Your task to perform on an android device: open a bookmark in the chrome app Image 0: 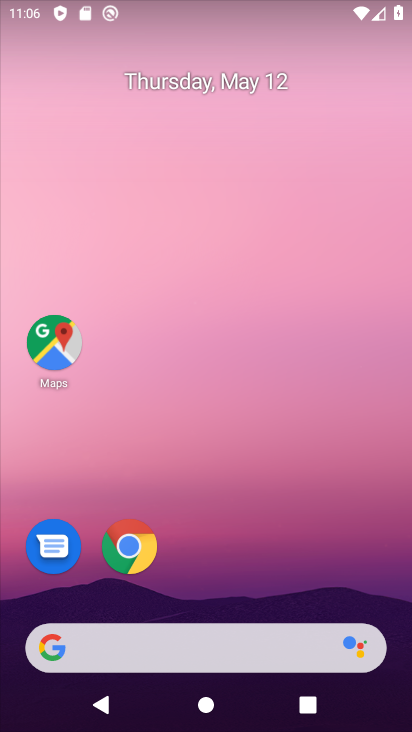
Step 0: click (136, 552)
Your task to perform on an android device: open a bookmark in the chrome app Image 1: 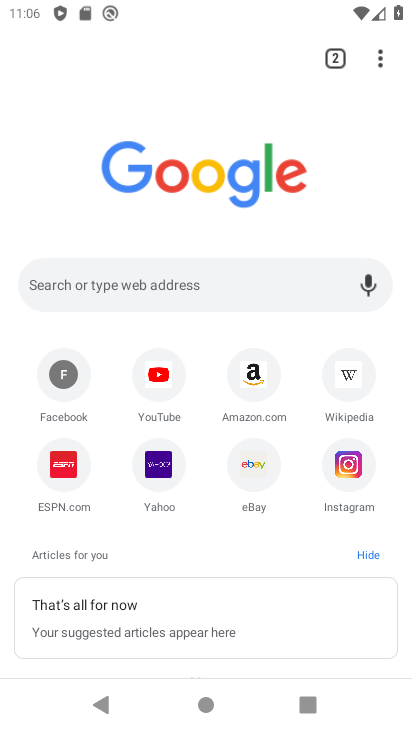
Step 1: click (381, 64)
Your task to perform on an android device: open a bookmark in the chrome app Image 2: 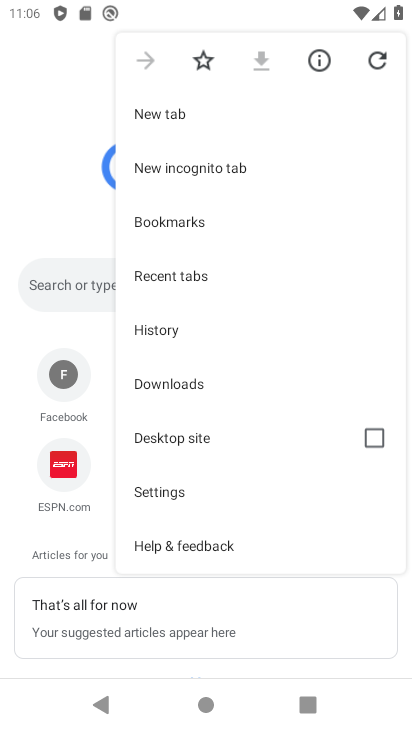
Step 2: click (182, 221)
Your task to perform on an android device: open a bookmark in the chrome app Image 3: 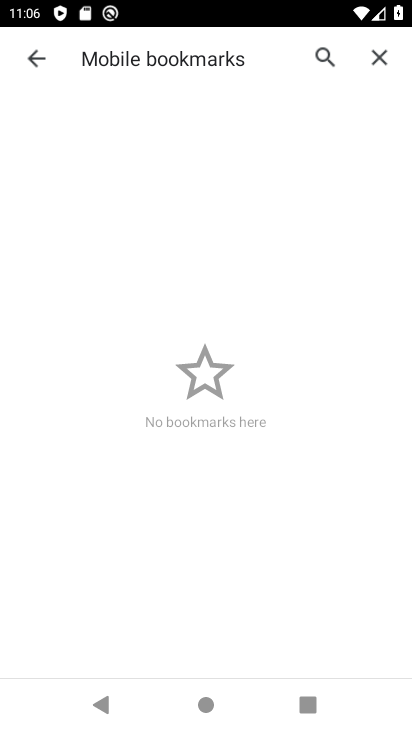
Step 3: task complete